Your task to perform on an android device: What's the weather going to be this weekend? Image 0: 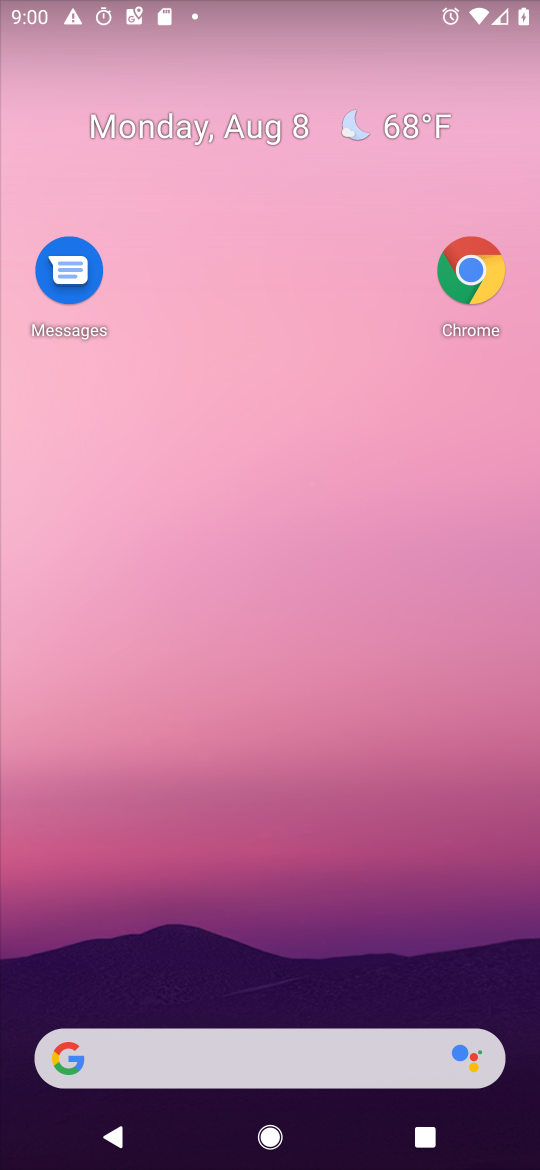
Step 0: drag from (271, 977) to (276, 39)
Your task to perform on an android device: What's the weather going to be this weekend? Image 1: 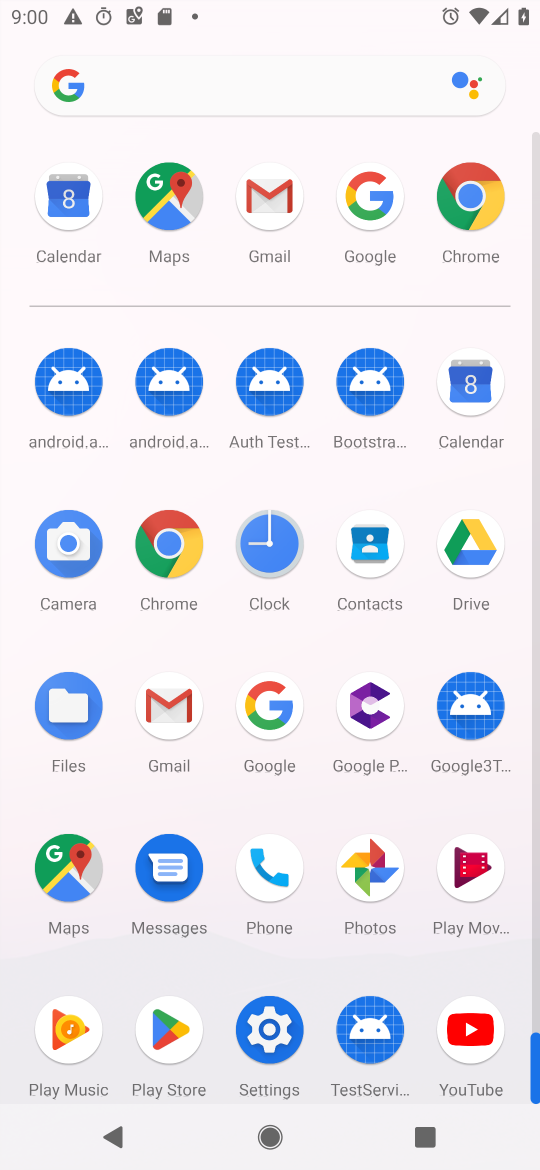
Step 1: click (193, 75)
Your task to perform on an android device: What's the weather going to be this weekend? Image 2: 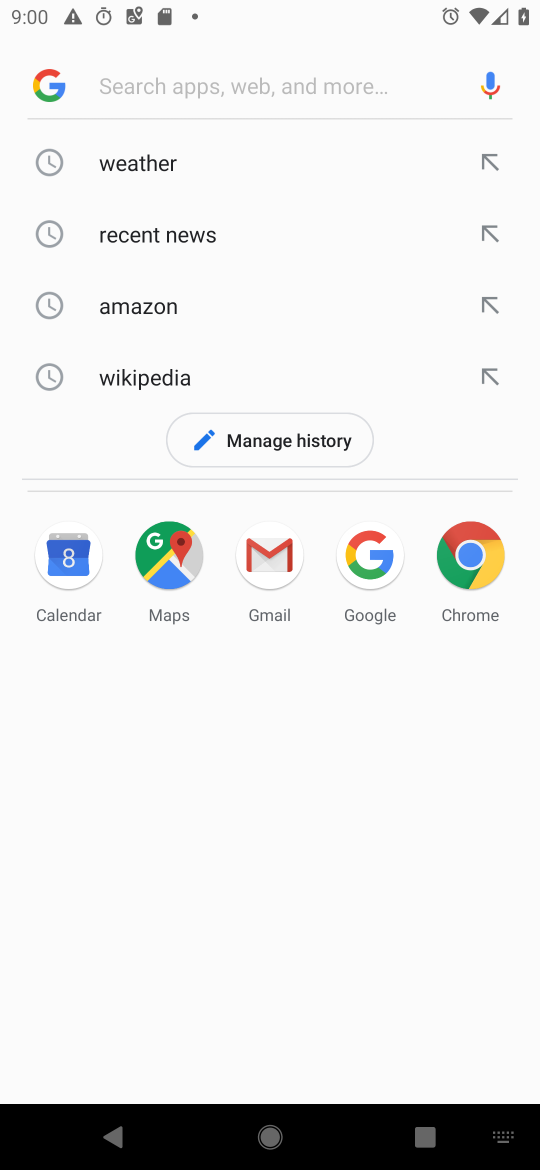
Step 2: type "What's the weather going to be this weekend?"
Your task to perform on an android device: What's the weather going to be this weekend? Image 3: 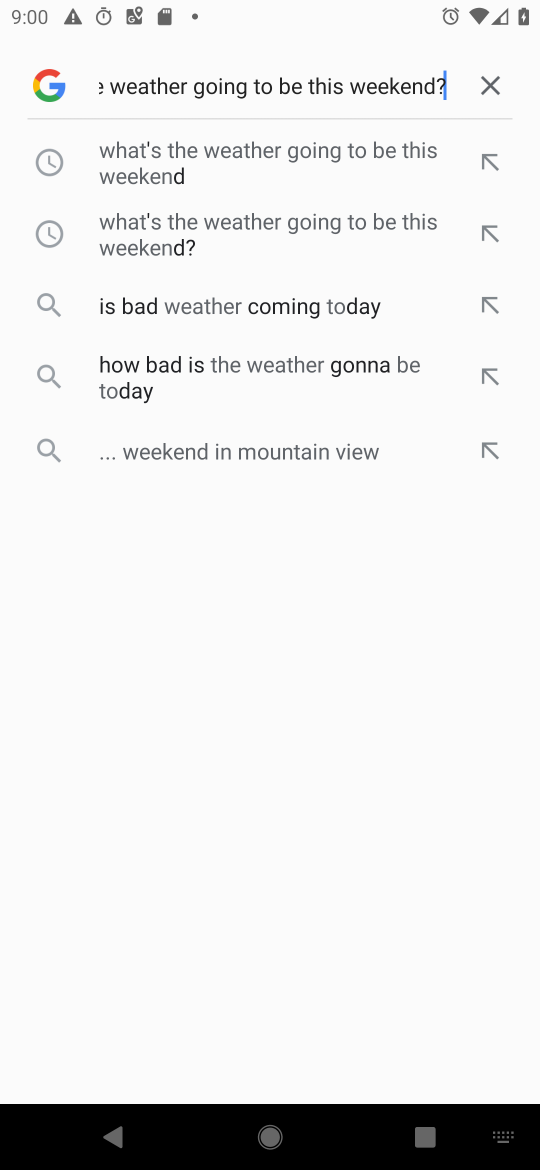
Step 3: type ""
Your task to perform on an android device: What's the weather going to be this weekend? Image 4: 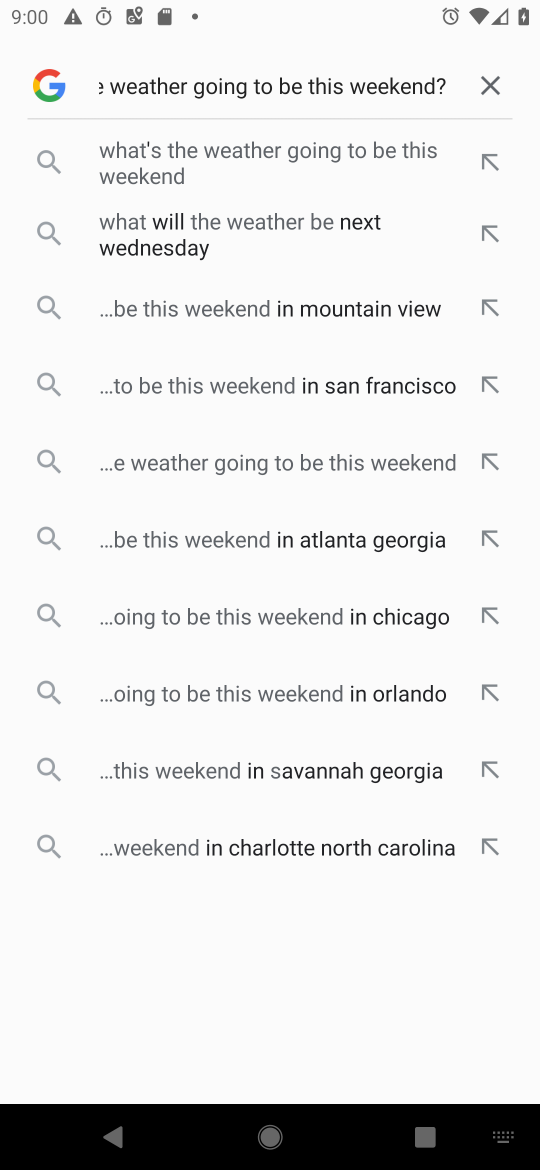
Step 4: click (224, 159)
Your task to perform on an android device: What's the weather going to be this weekend? Image 5: 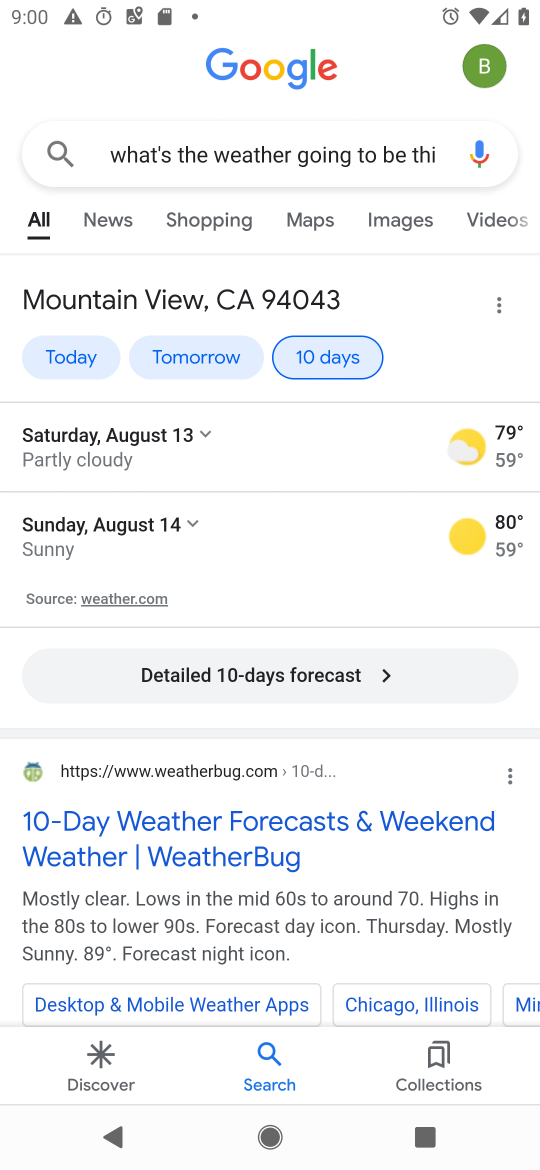
Step 5: task complete